Your task to perform on an android device: Go to wifi settings Image 0: 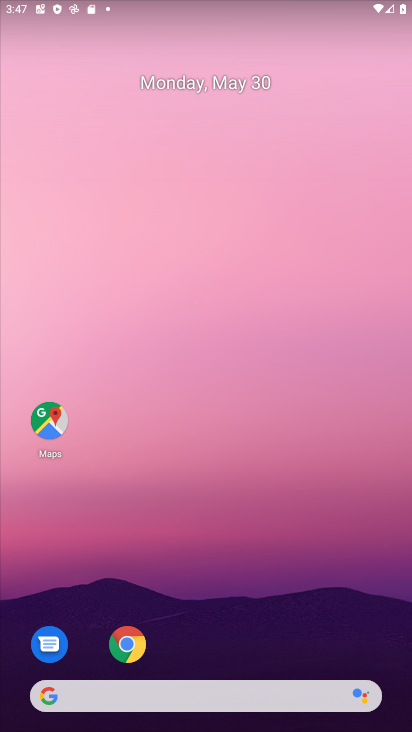
Step 0: drag from (238, 639) to (200, 149)
Your task to perform on an android device: Go to wifi settings Image 1: 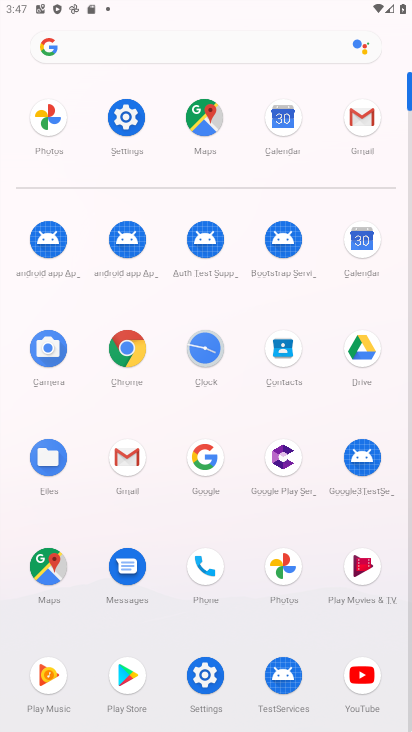
Step 1: click (108, 141)
Your task to perform on an android device: Go to wifi settings Image 2: 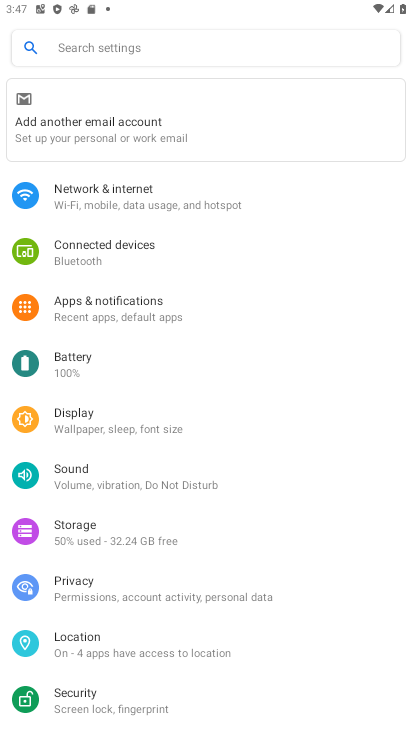
Step 2: click (106, 215)
Your task to perform on an android device: Go to wifi settings Image 3: 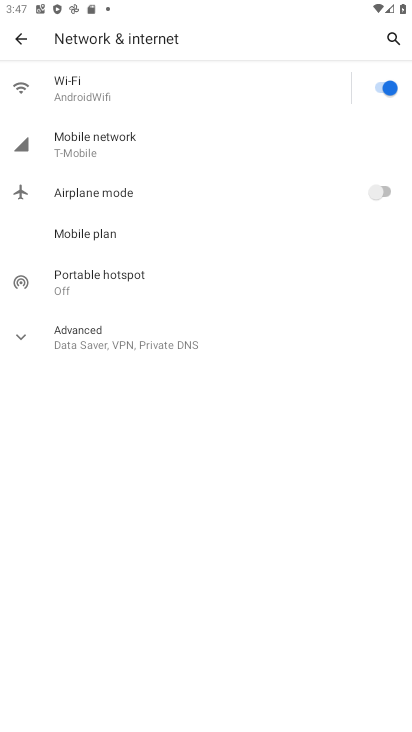
Step 3: task complete